Your task to perform on an android device: open app "WhatsApp Messenger" (install if not already installed) and enter user name: "cartons@outlook.com" and password: "approximated" Image 0: 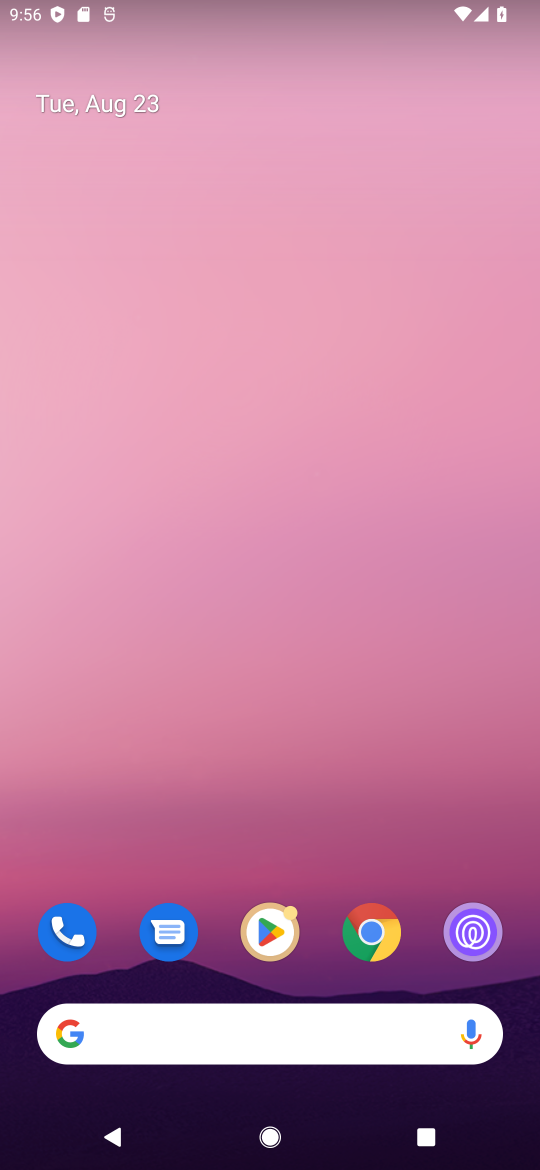
Step 0: click (269, 942)
Your task to perform on an android device: open app "WhatsApp Messenger" (install if not already installed) and enter user name: "cartons@outlook.com" and password: "approximated" Image 1: 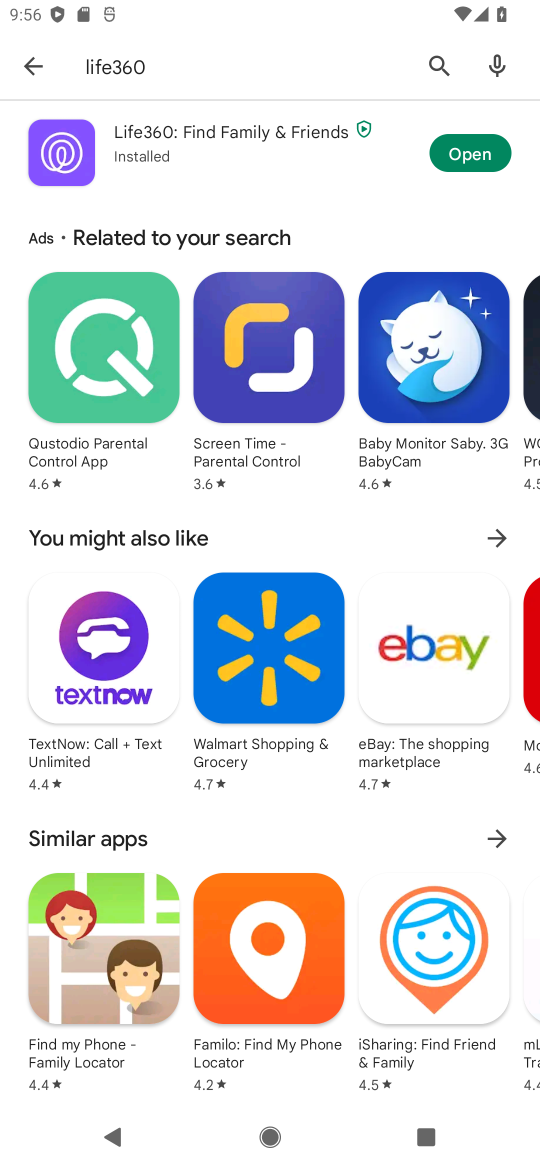
Step 1: click (439, 54)
Your task to perform on an android device: open app "WhatsApp Messenger" (install if not already installed) and enter user name: "cartons@outlook.com" and password: "approximated" Image 2: 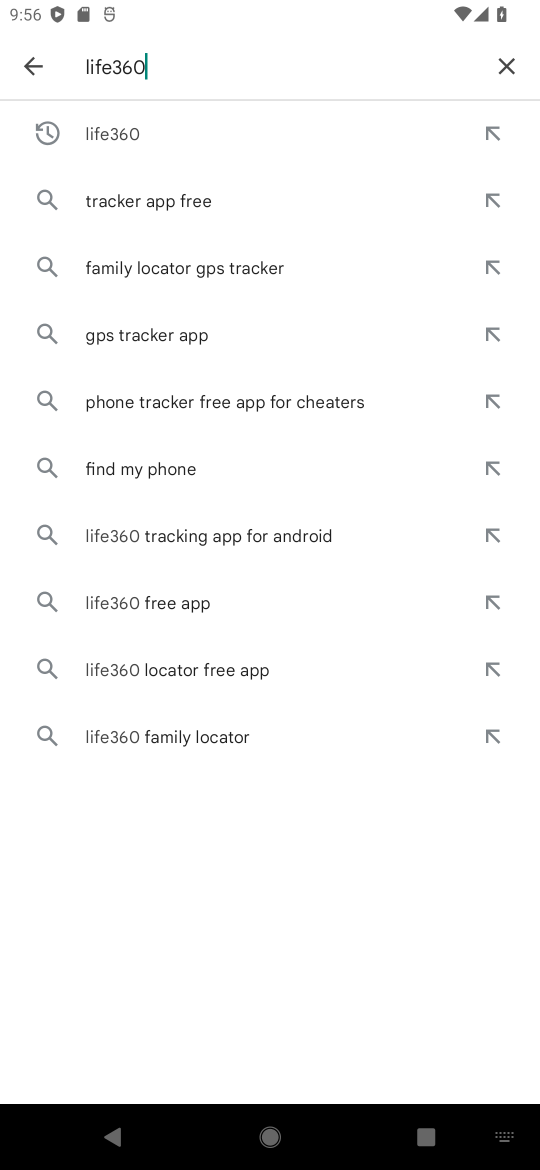
Step 2: click (505, 73)
Your task to perform on an android device: open app "WhatsApp Messenger" (install if not already installed) and enter user name: "cartons@outlook.com" and password: "approximated" Image 3: 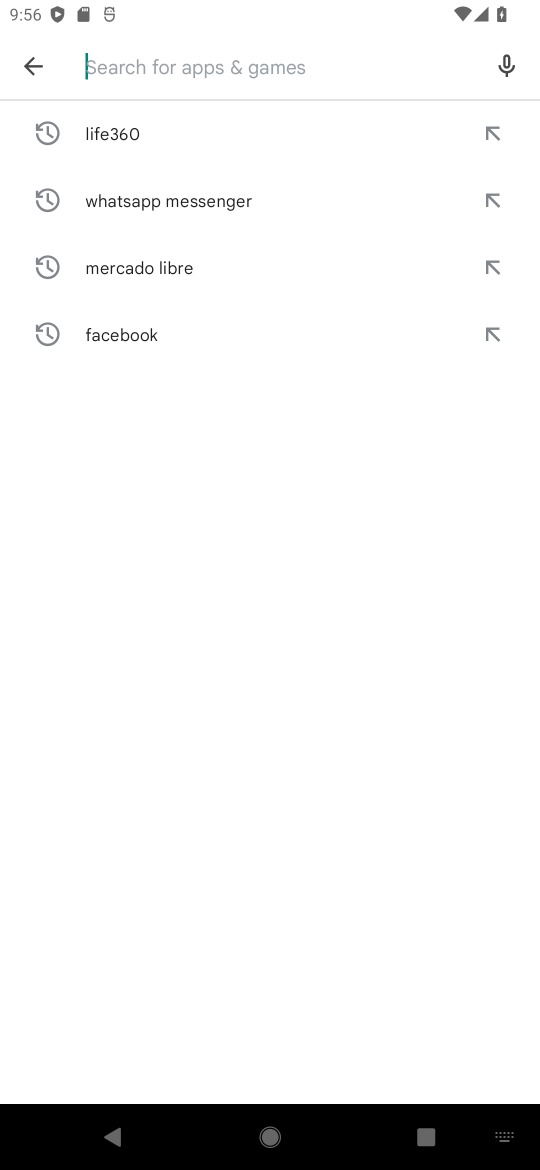
Step 3: click (109, 74)
Your task to perform on an android device: open app "WhatsApp Messenger" (install if not already installed) and enter user name: "cartons@outlook.com" and password: "approximated" Image 4: 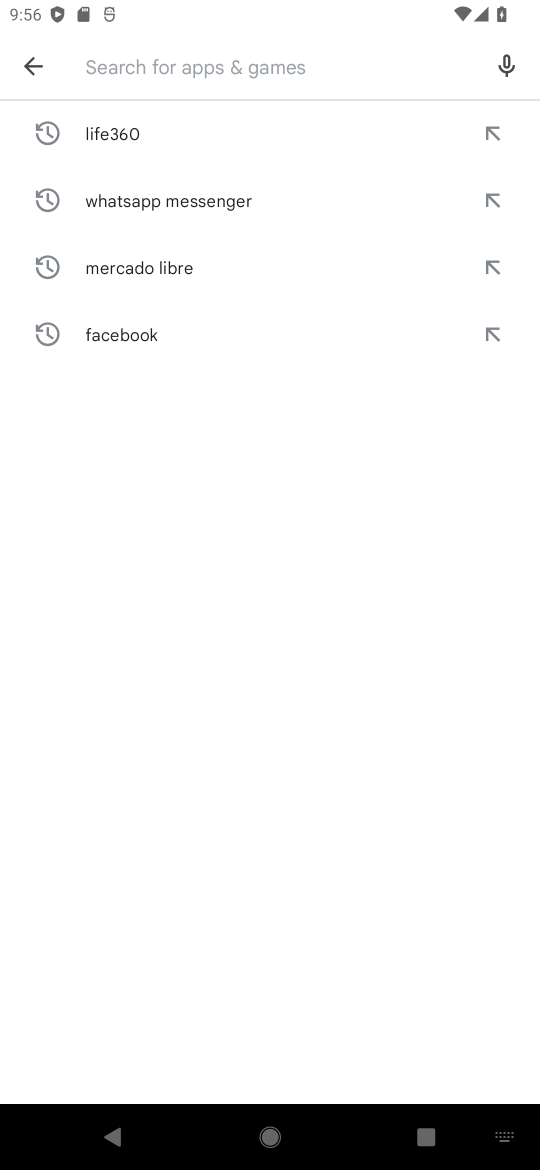
Step 4: type "WhatsApp Messenger"
Your task to perform on an android device: open app "WhatsApp Messenger" (install if not already installed) and enter user name: "cartons@outlook.com" and password: "approximated" Image 5: 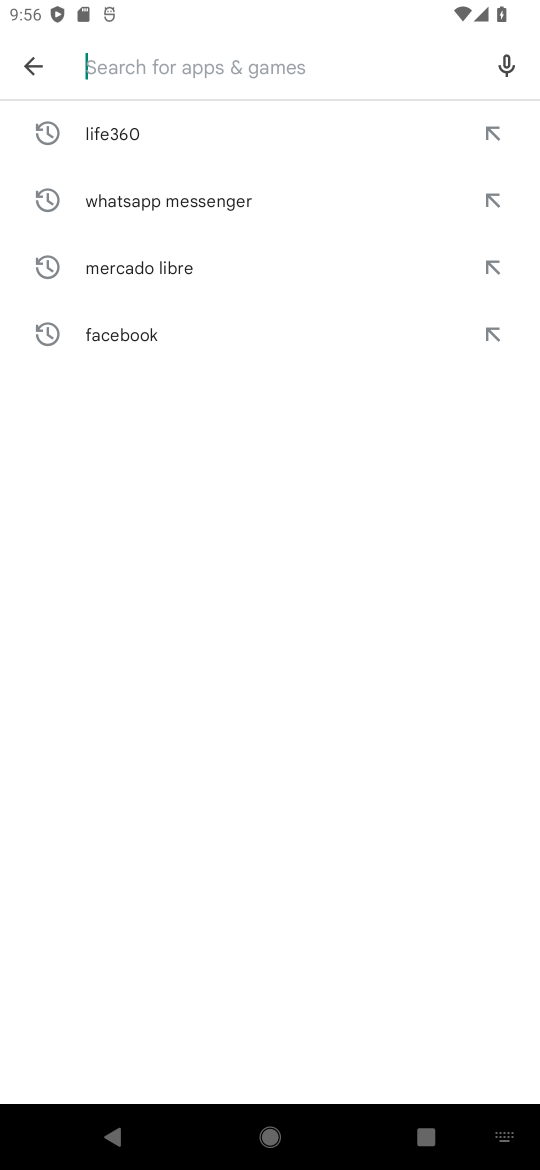
Step 5: click (139, 893)
Your task to perform on an android device: open app "WhatsApp Messenger" (install if not already installed) and enter user name: "cartons@outlook.com" and password: "approximated" Image 6: 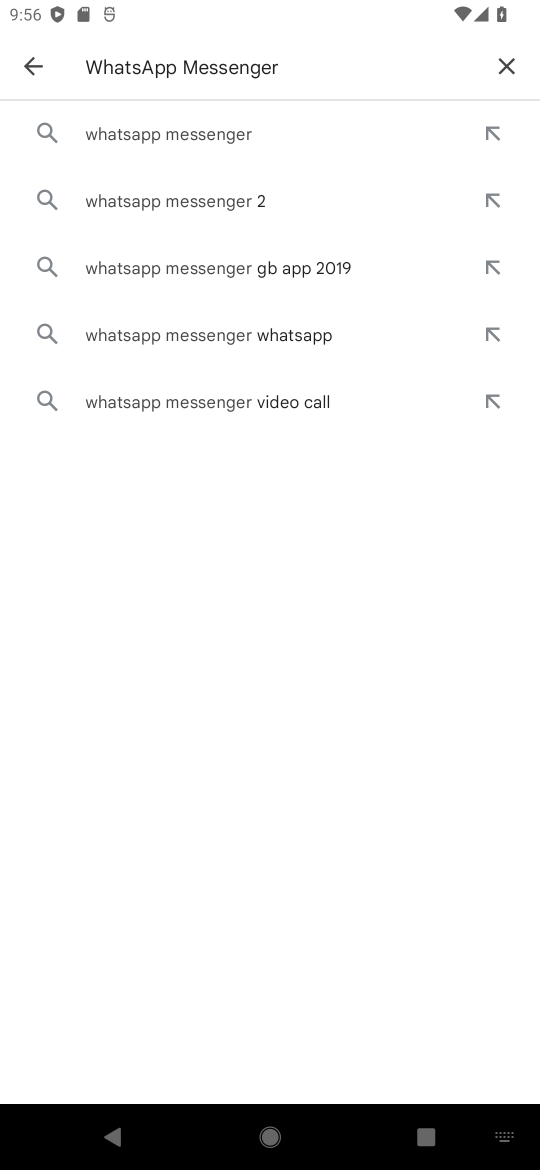
Step 6: click (207, 130)
Your task to perform on an android device: open app "WhatsApp Messenger" (install if not already installed) and enter user name: "cartons@outlook.com" and password: "approximated" Image 7: 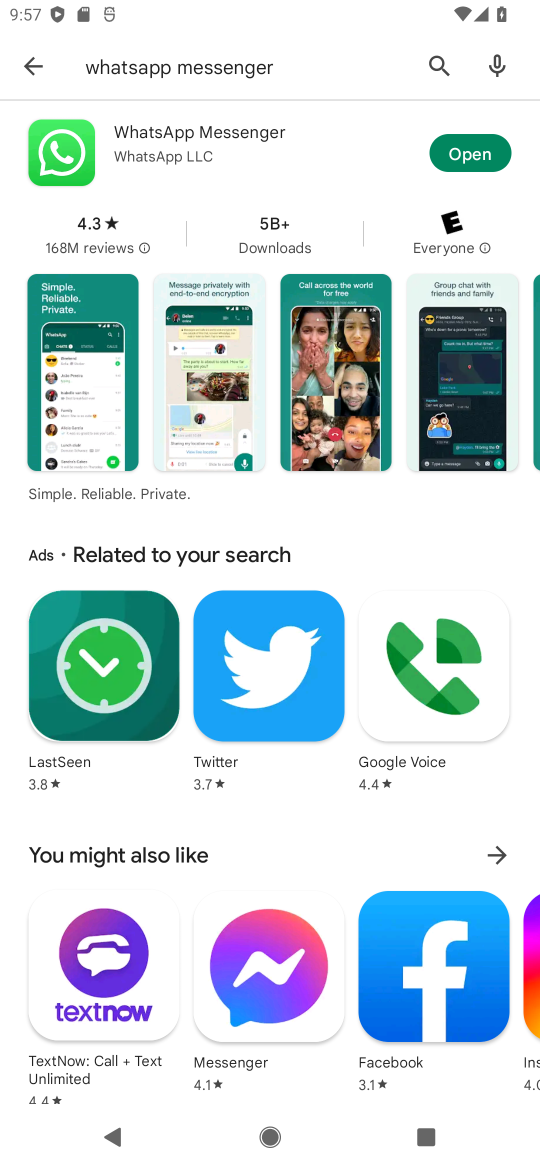
Step 7: click (475, 155)
Your task to perform on an android device: open app "WhatsApp Messenger" (install if not already installed) and enter user name: "cartons@outlook.com" and password: "approximated" Image 8: 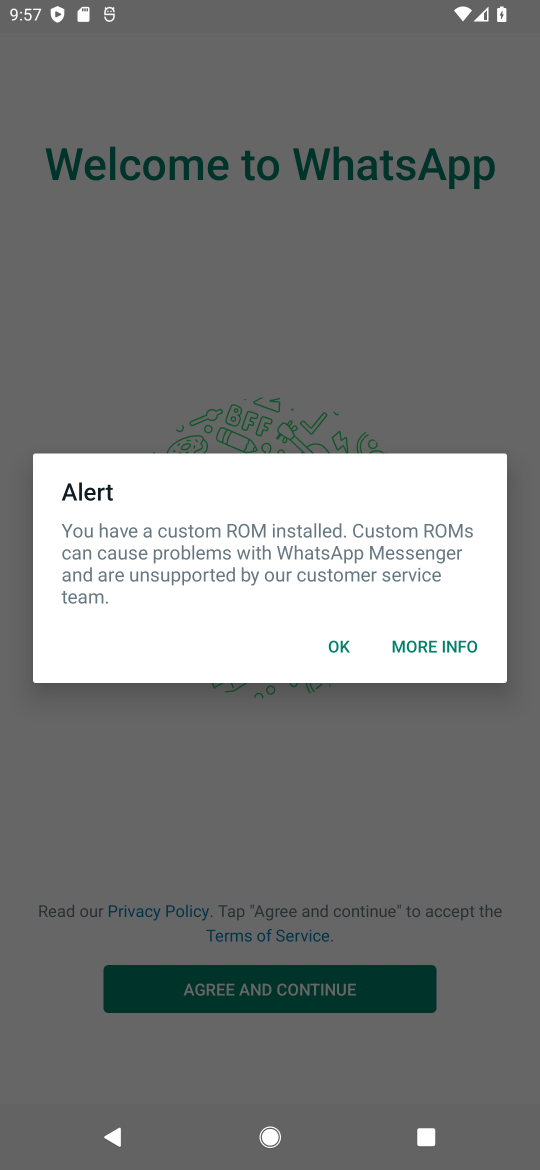
Step 8: click (348, 648)
Your task to perform on an android device: open app "WhatsApp Messenger" (install if not already installed) and enter user name: "cartons@outlook.com" and password: "approximated" Image 9: 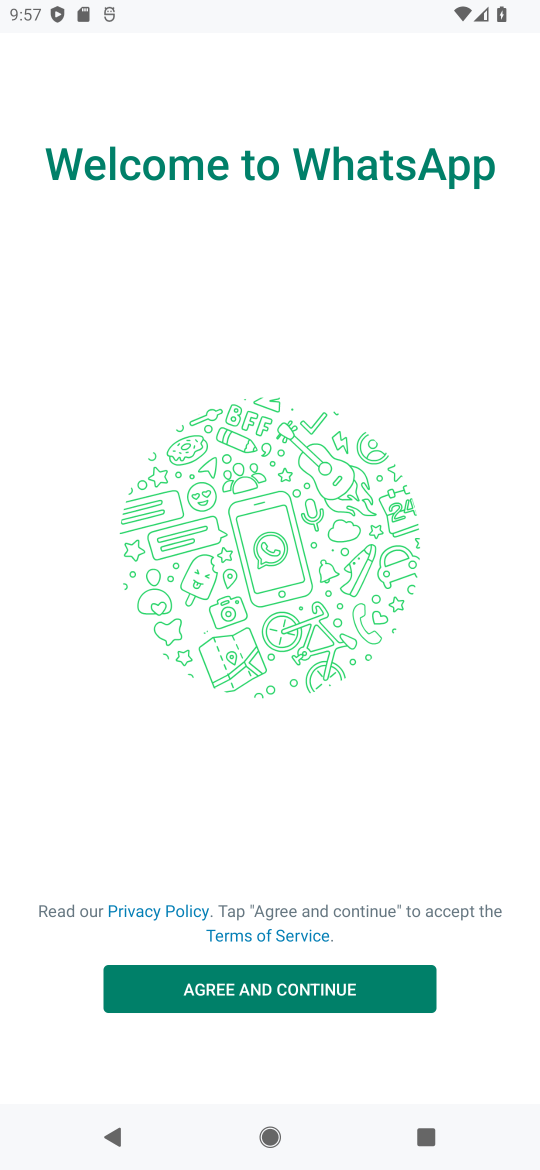
Step 9: click (310, 1011)
Your task to perform on an android device: open app "WhatsApp Messenger" (install if not already installed) and enter user name: "cartons@outlook.com" and password: "approximated" Image 10: 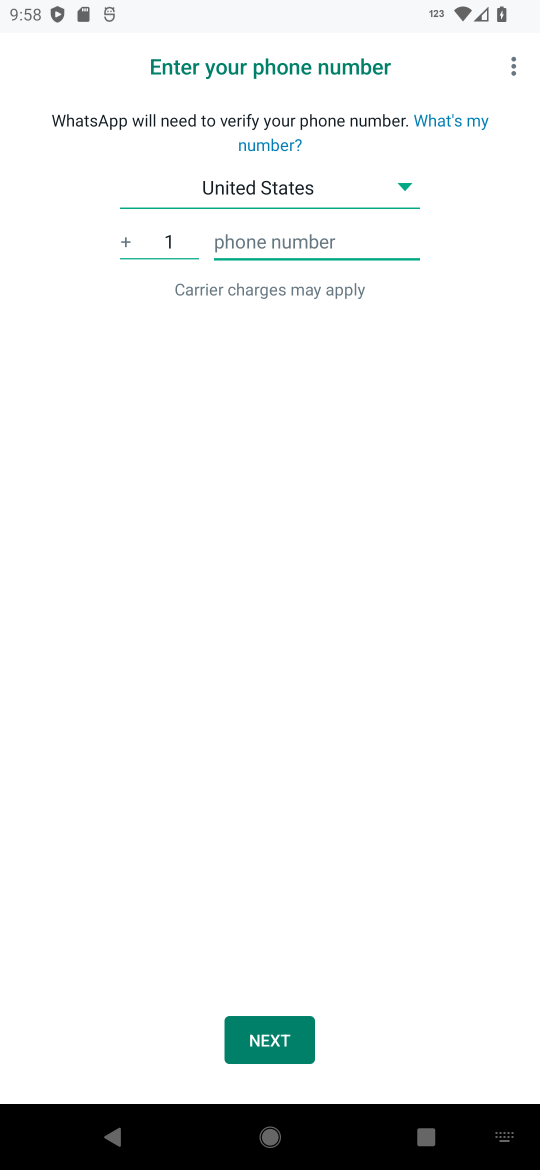
Step 10: task complete